Your task to perform on an android device: open wifi settings Image 0: 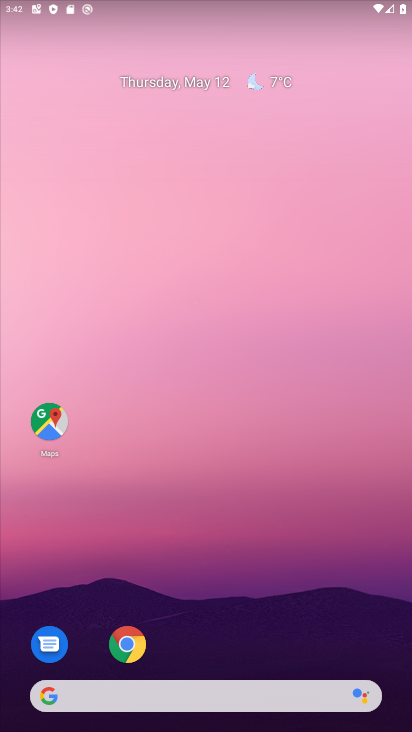
Step 0: drag from (209, 639) to (231, 73)
Your task to perform on an android device: open wifi settings Image 1: 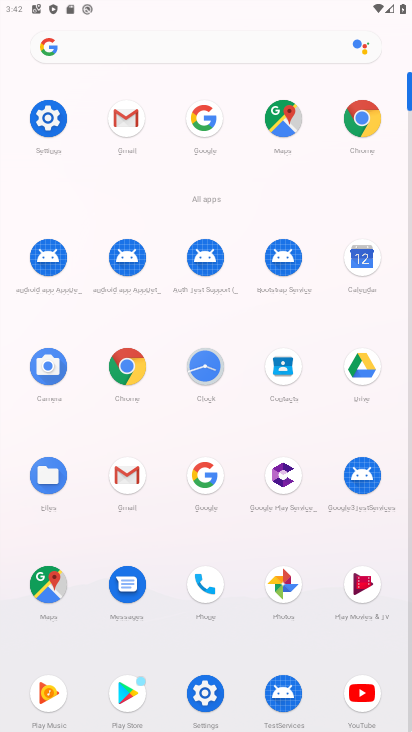
Step 1: click (47, 117)
Your task to perform on an android device: open wifi settings Image 2: 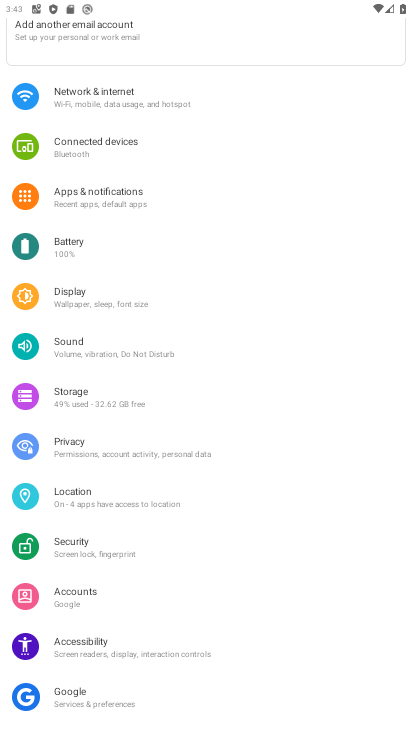
Step 2: click (67, 87)
Your task to perform on an android device: open wifi settings Image 3: 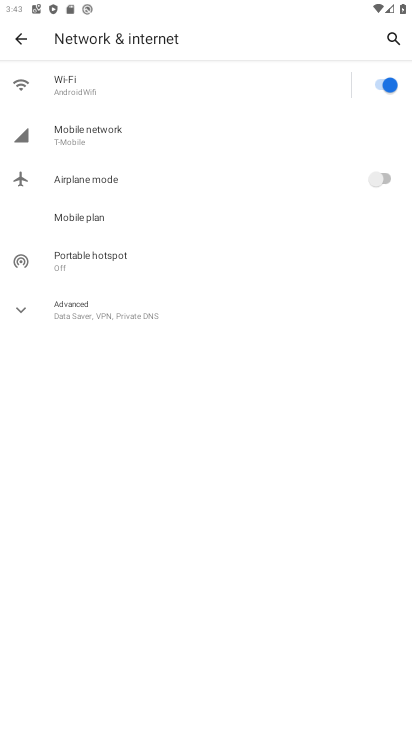
Step 3: click (117, 82)
Your task to perform on an android device: open wifi settings Image 4: 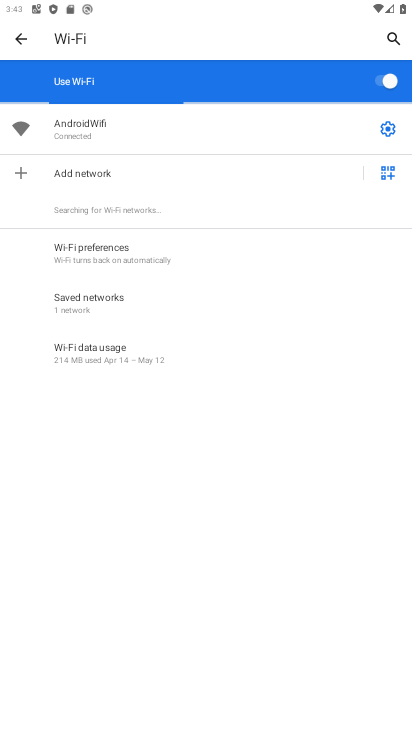
Step 4: task complete